Your task to perform on an android device: check the backup settings in the google photos Image 0: 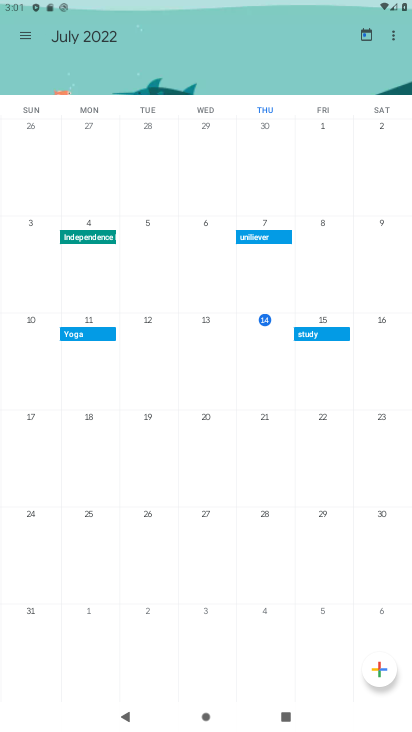
Step 0: press home button
Your task to perform on an android device: check the backup settings in the google photos Image 1: 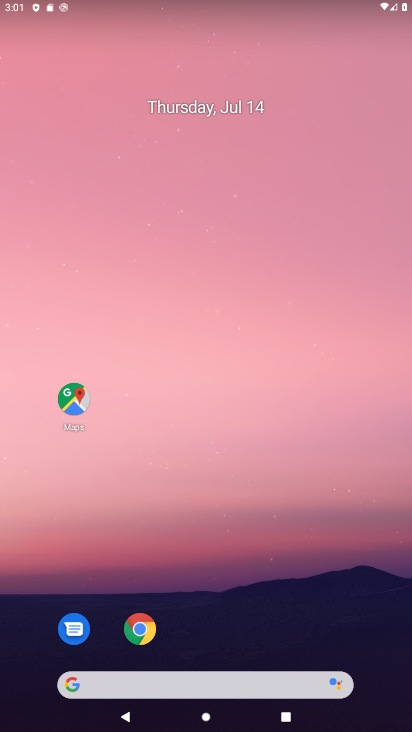
Step 1: drag from (199, 634) to (121, 102)
Your task to perform on an android device: check the backup settings in the google photos Image 2: 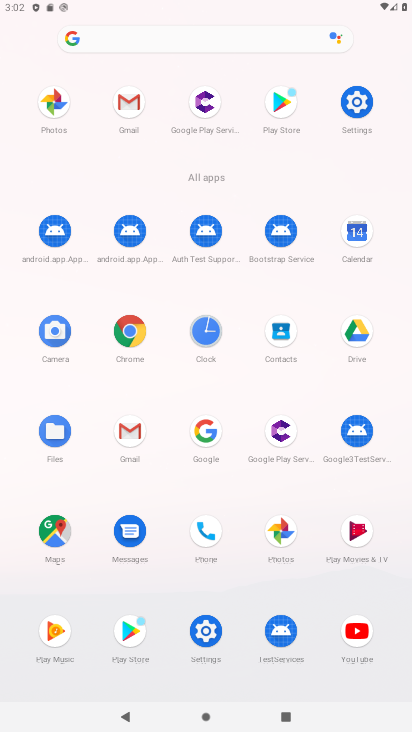
Step 2: click (277, 531)
Your task to perform on an android device: check the backup settings in the google photos Image 3: 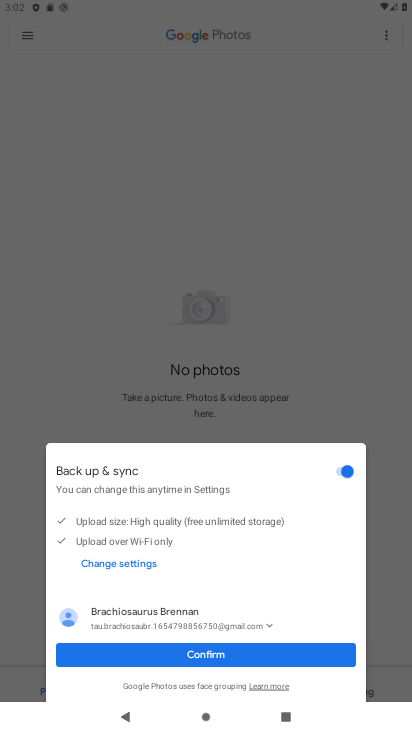
Step 3: click (217, 654)
Your task to perform on an android device: check the backup settings in the google photos Image 4: 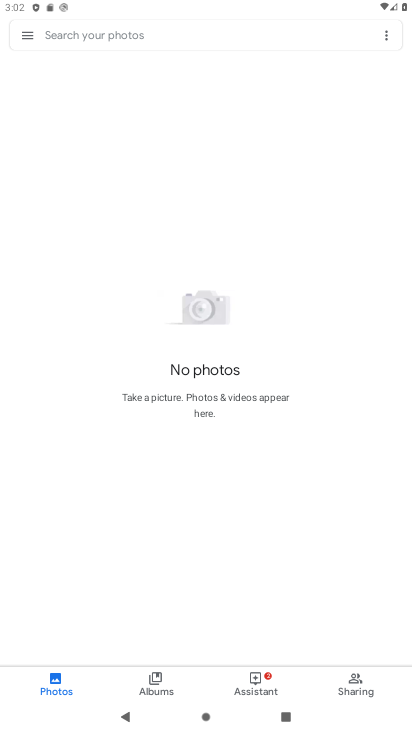
Step 4: click (24, 36)
Your task to perform on an android device: check the backup settings in the google photos Image 5: 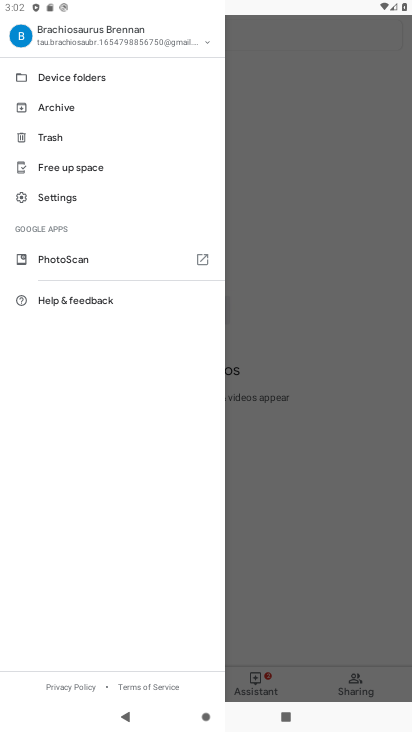
Step 5: click (46, 193)
Your task to perform on an android device: check the backup settings in the google photos Image 6: 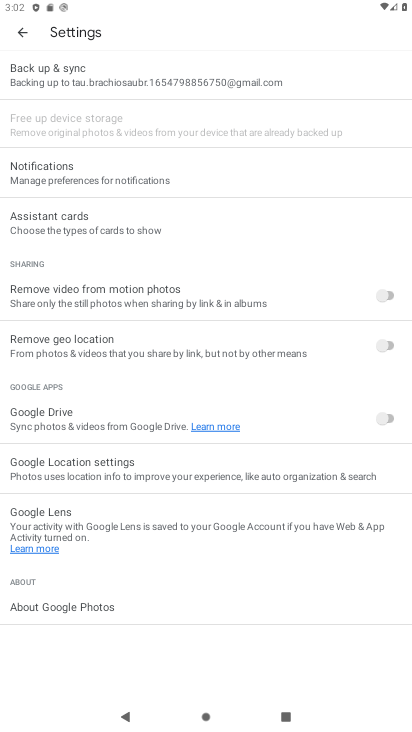
Step 6: click (71, 79)
Your task to perform on an android device: check the backup settings in the google photos Image 7: 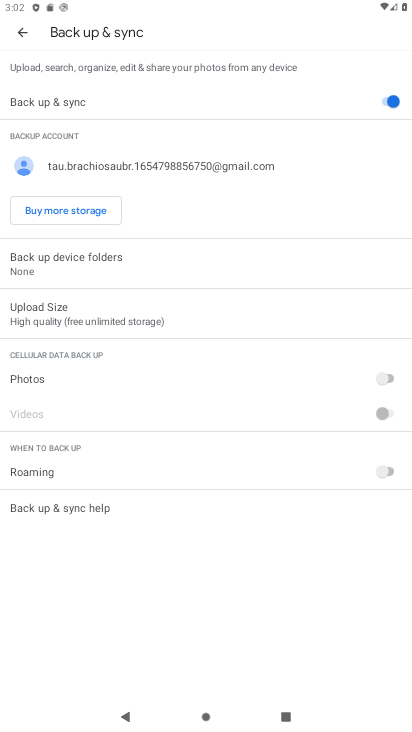
Step 7: task complete